Your task to perform on an android device: set the stopwatch Image 0: 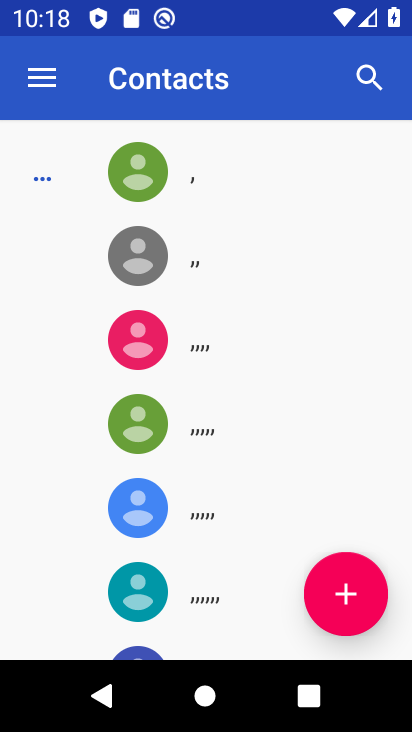
Step 0: press back button
Your task to perform on an android device: set the stopwatch Image 1: 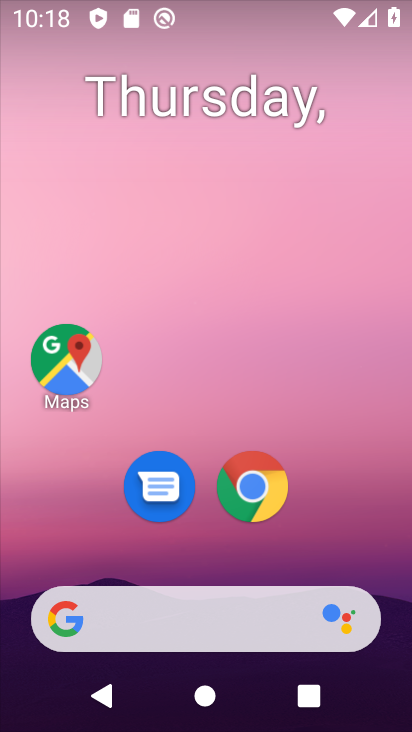
Step 1: drag from (232, 485) to (321, 17)
Your task to perform on an android device: set the stopwatch Image 2: 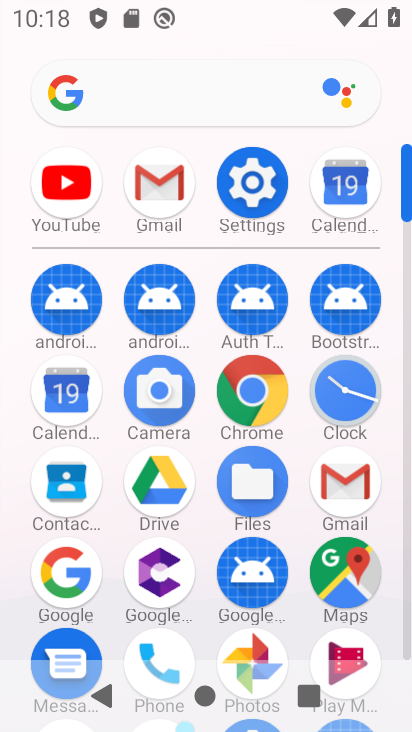
Step 2: click (338, 375)
Your task to perform on an android device: set the stopwatch Image 3: 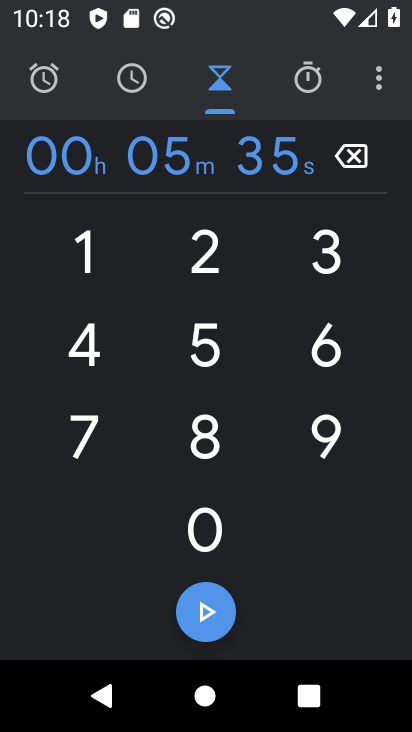
Step 3: click (310, 70)
Your task to perform on an android device: set the stopwatch Image 4: 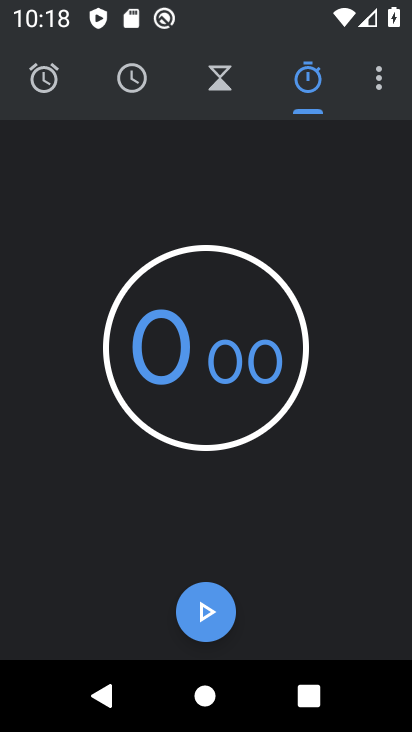
Step 4: click (201, 312)
Your task to perform on an android device: set the stopwatch Image 5: 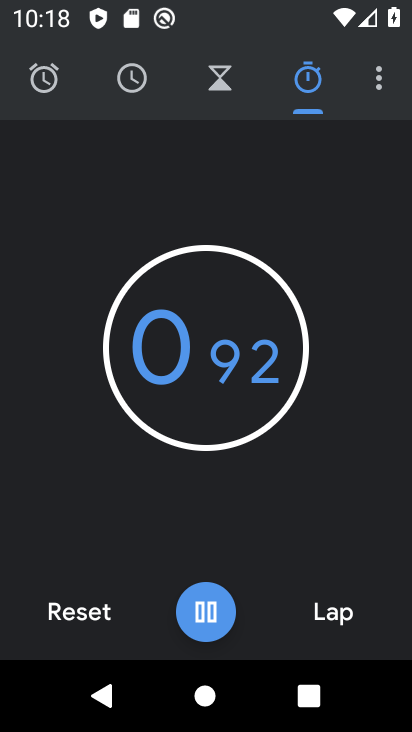
Step 5: click (201, 312)
Your task to perform on an android device: set the stopwatch Image 6: 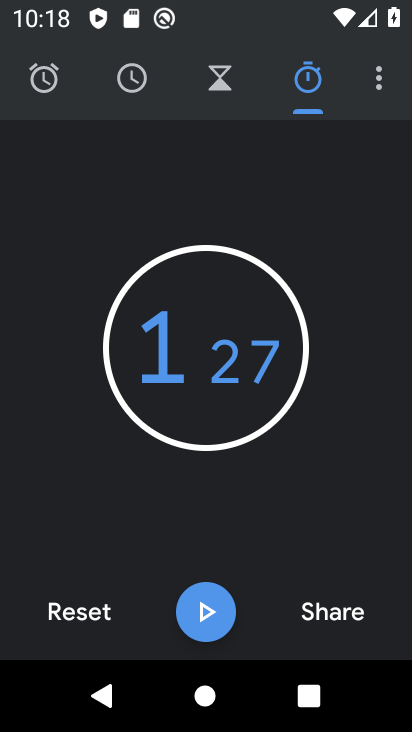
Step 6: task complete